Your task to perform on an android device: Show me the alarms in the clock app Image 0: 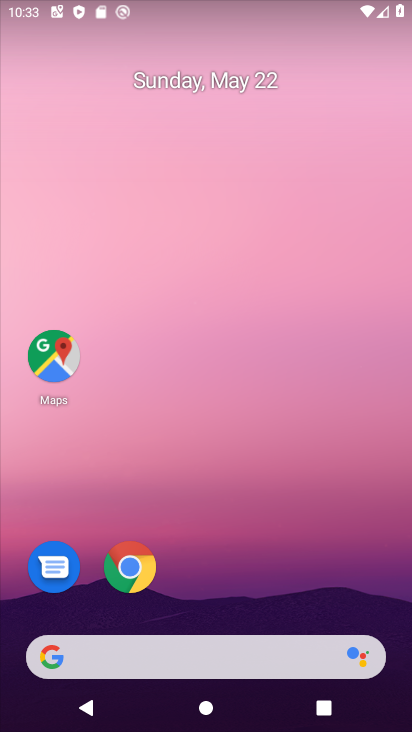
Step 0: drag from (231, 564) to (213, 3)
Your task to perform on an android device: Show me the alarms in the clock app Image 1: 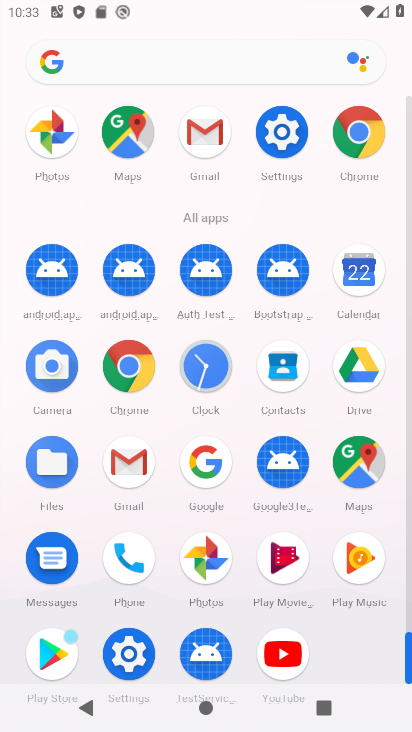
Step 1: drag from (3, 583) to (2, 182)
Your task to perform on an android device: Show me the alarms in the clock app Image 2: 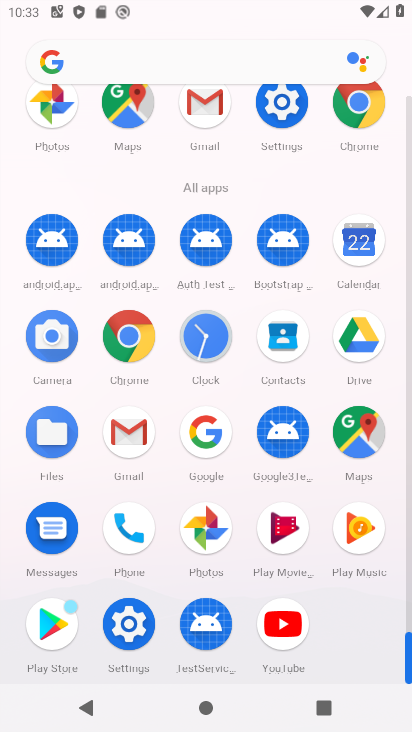
Step 2: click (204, 334)
Your task to perform on an android device: Show me the alarms in the clock app Image 3: 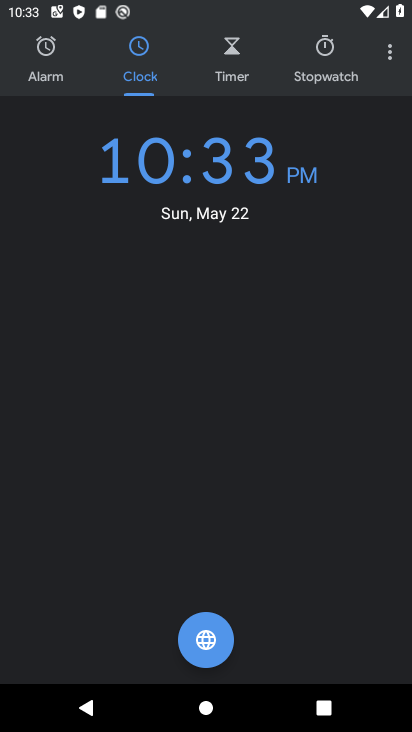
Step 3: click (50, 50)
Your task to perform on an android device: Show me the alarms in the clock app Image 4: 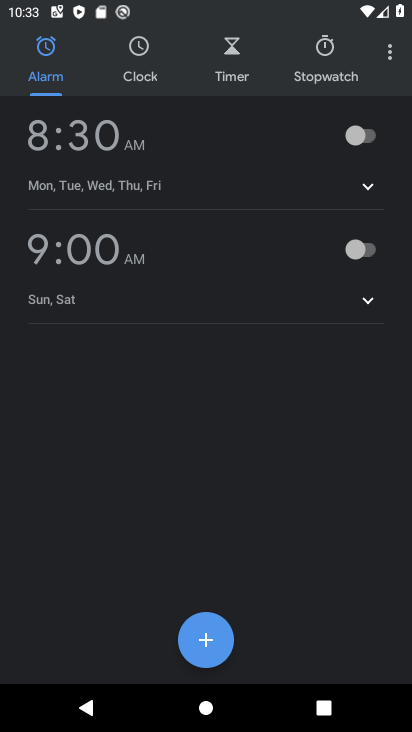
Step 4: task complete